Your task to perform on an android device: Go to wifi settings Image 0: 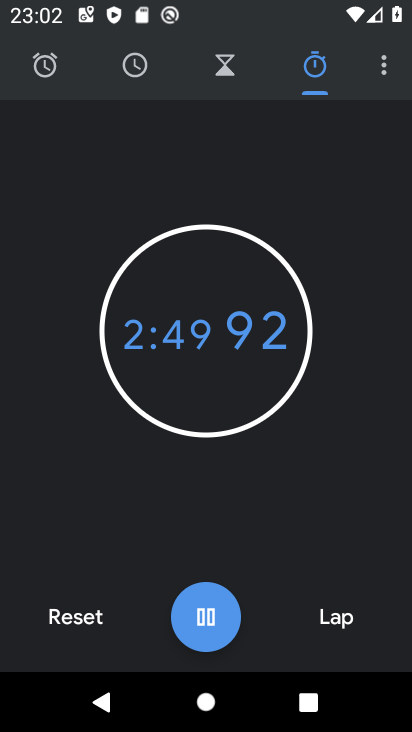
Step 0: press home button
Your task to perform on an android device: Go to wifi settings Image 1: 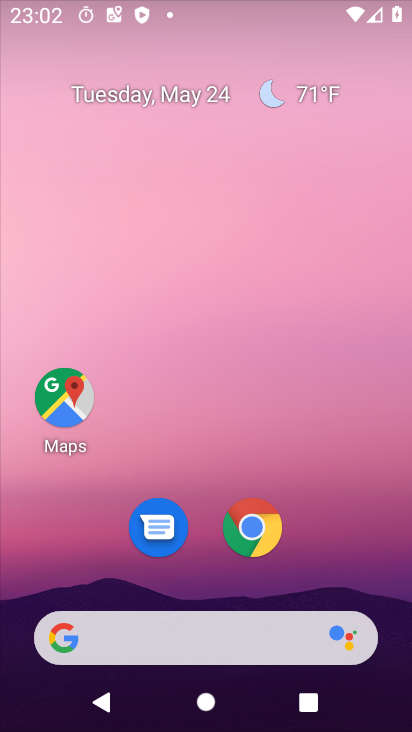
Step 1: drag from (309, 586) to (313, 57)
Your task to perform on an android device: Go to wifi settings Image 2: 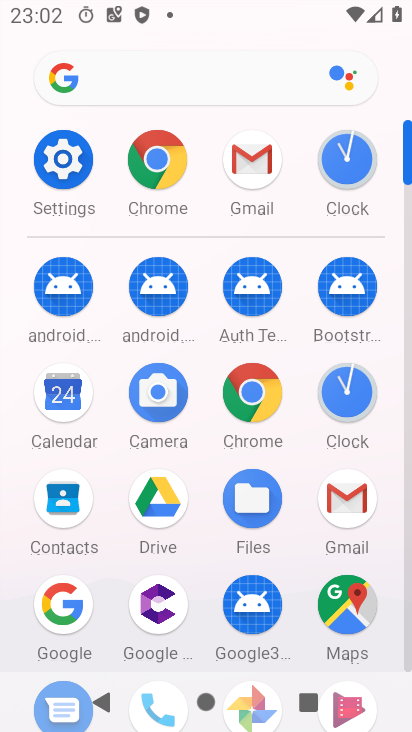
Step 2: click (82, 163)
Your task to perform on an android device: Go to wifi settings Image 3: 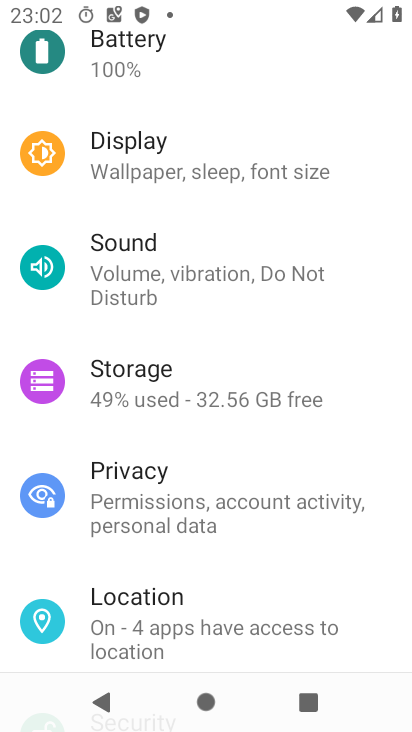
Step 3: drag from (254, 189) to (237, 633)
Your task to perform on an android device: Go to wifi settings Image 4: 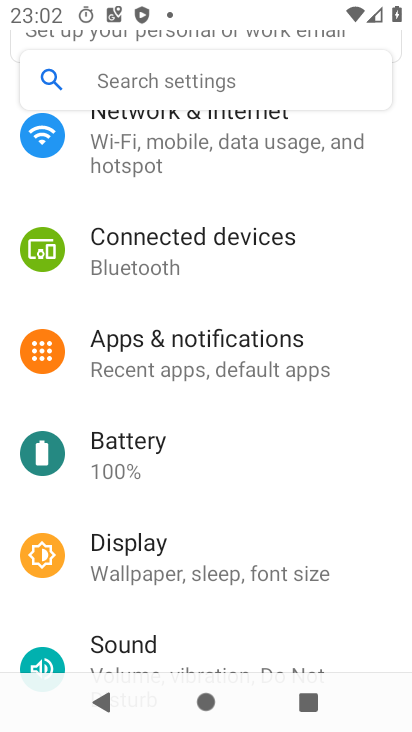
Step 4: drag from (234, 252) to (201, 564)
Your task to perform on an android device: Go to wifi settings Image 5: 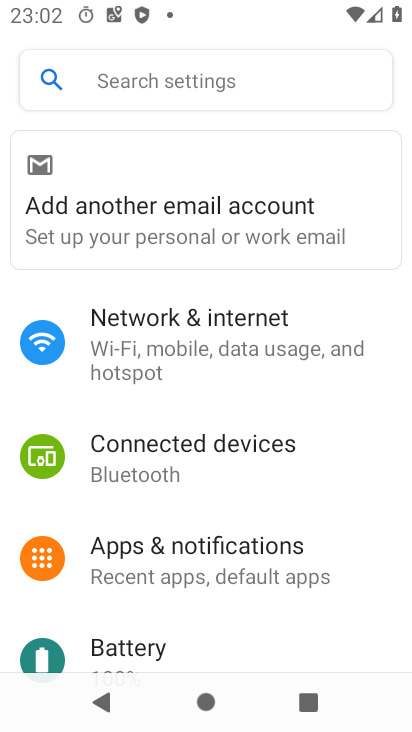
Step 5: click (162, 324)
Your task to perform on an android device: Go to wifi settings Image 6: 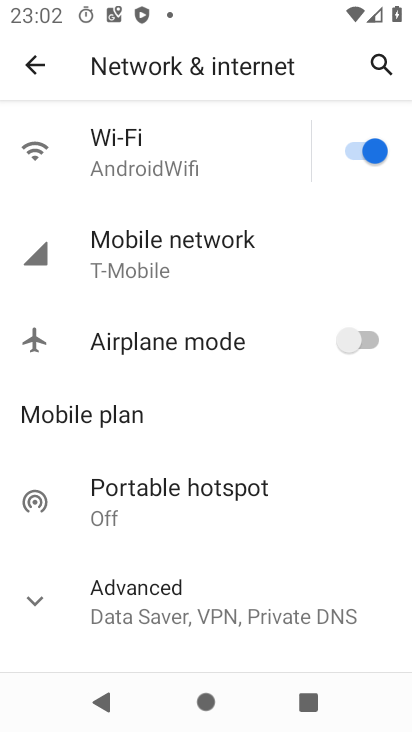
Step 6: click (99, 150)
Your task to perform on an android device: Go to wifi settings Image 7: 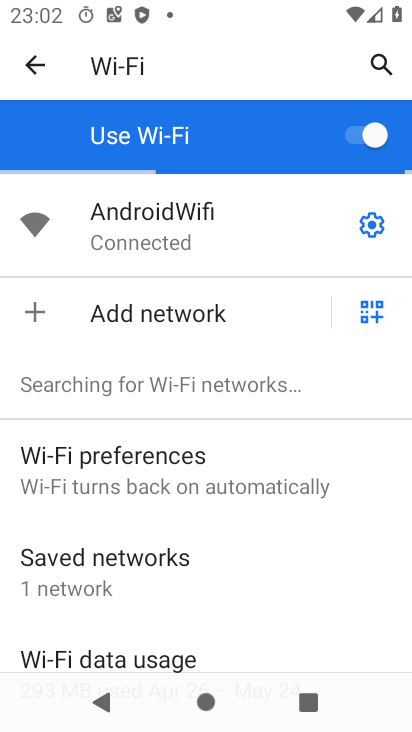
Step 7: task complete